Your task to perform on an android device: turn off airplane mode Image 0: 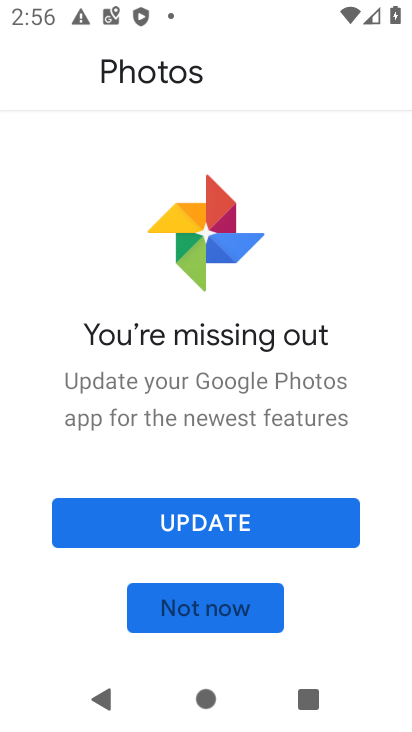
Step 0: press home button
Your task to perform on an android device: turn off airplane mode Image 1: 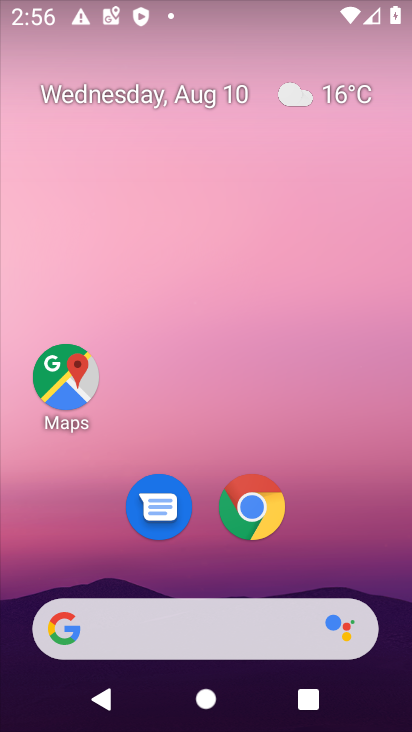
Step 1: drag from (350, 518) to (346, 57)
Your task to perform on an android device: turn off airplane mode Image 2: 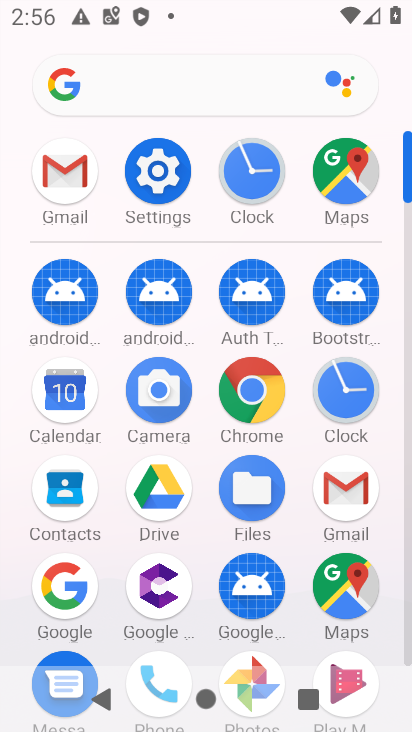
Step 2: click (145, 184)
Your task to perform on an android device: turn off airplane mode Image 3: 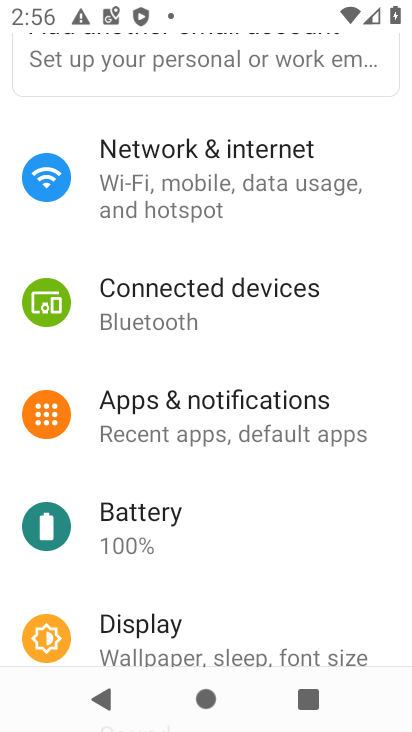
Step 3: drag from (328, 143) to (296, 511)
Your task to perform on an android device: turn off airplane mode Image 4: 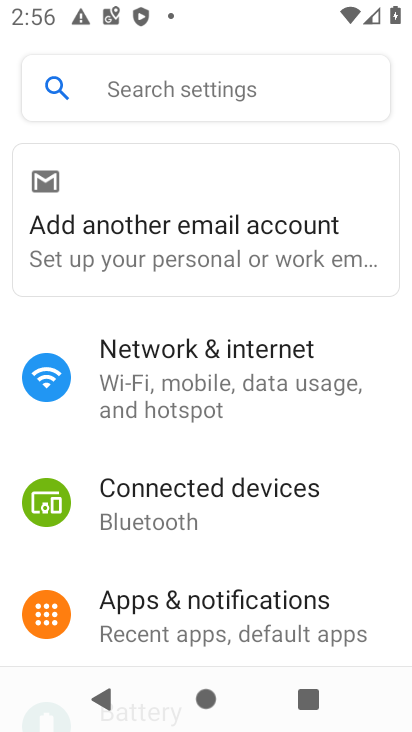
Step 4: click (189, 388)
Your task to perform on an android device: turn off airplane mode Image 5: 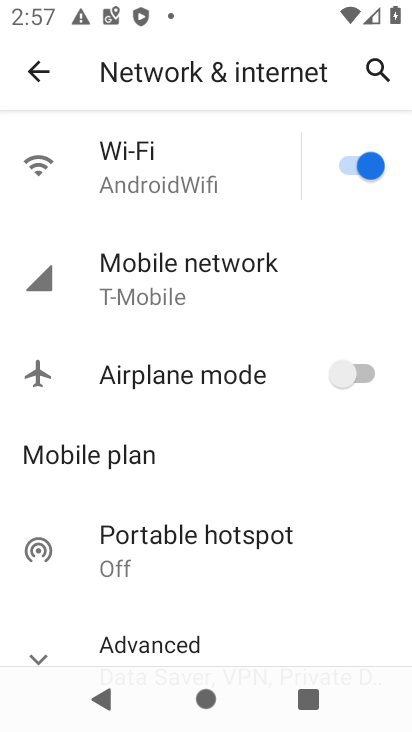
Step 5: task complete